Your task to perform on an android device: toggle translation in the chrome app Image 0: 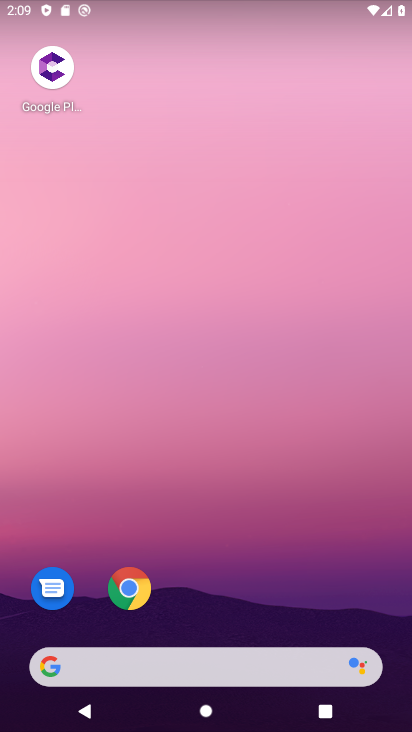
Step 0: click (135, 590)
Your task to perform on an android device: toggle translation in the chrome app Image 1: 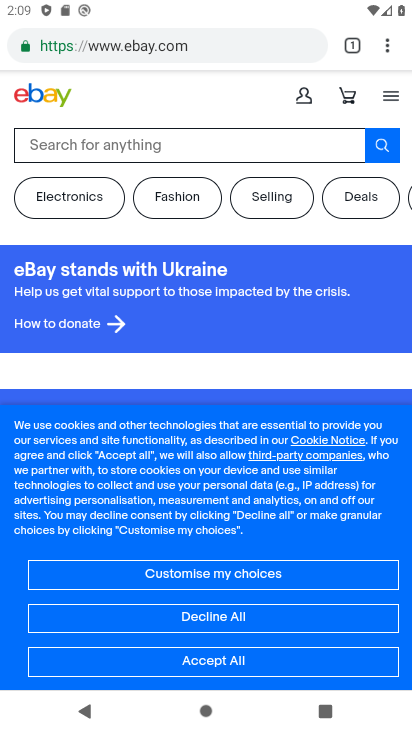
Step 1: click (383, 46)
Your task to perform on an android device: toggle translation in the chrome app Image 2: 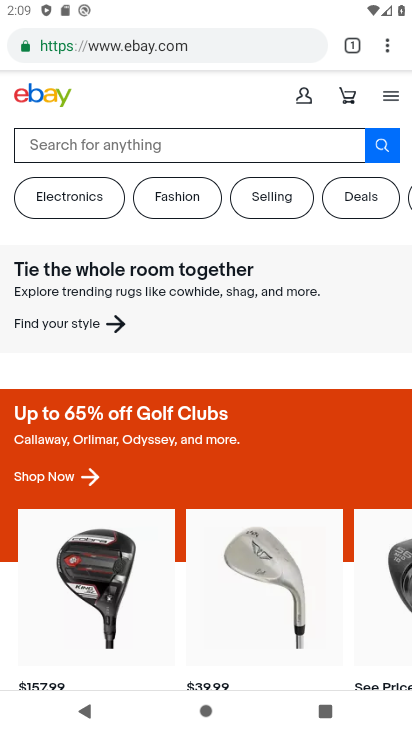
Step 2: drag from (385, 52) to (243, 540)
Your task to perform on an android device: toggle translation in the chrome app Image 3: 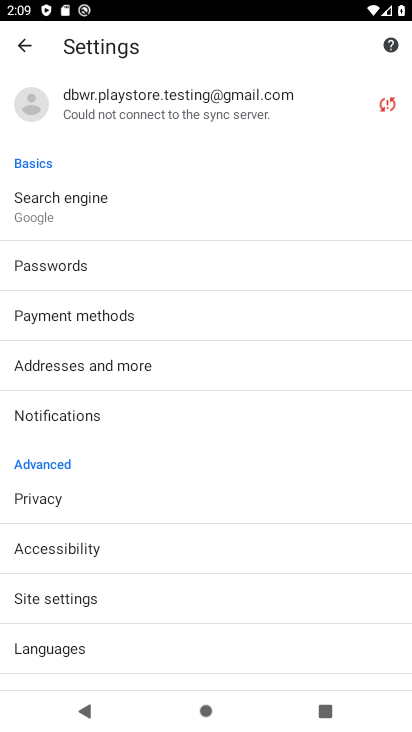
Step 3: click (73, 656)
Your task to perform on an android device: toggle translation in the chrome app Image 4: 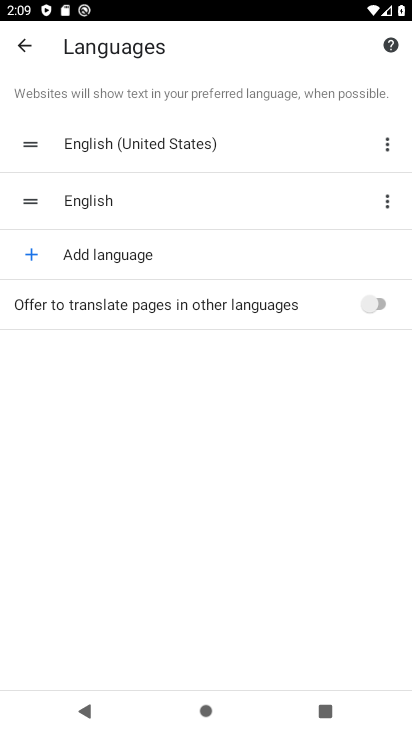
Step 4: click (381, 303)
Your task to perform on an android device: toggle translation in the chrome app Image 5: 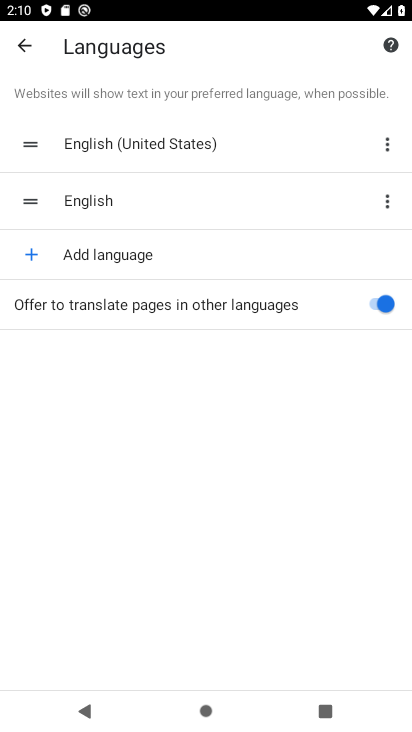
Step 5: task complete